Your task to perform on an android device: add a contact Image 0: 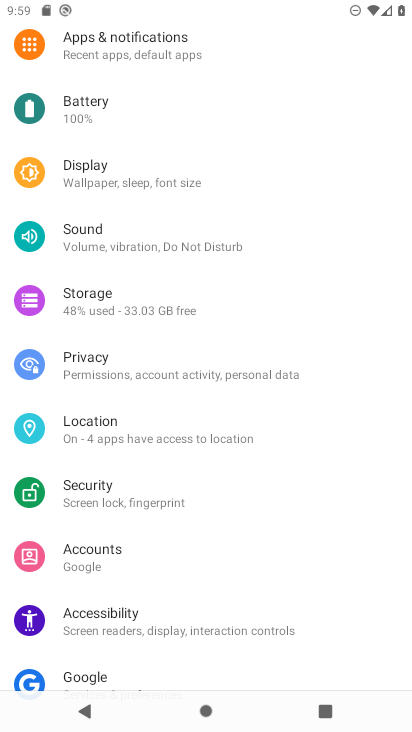
Step 0: press home button
Your task to perform on an android device: add a contact Image 1: 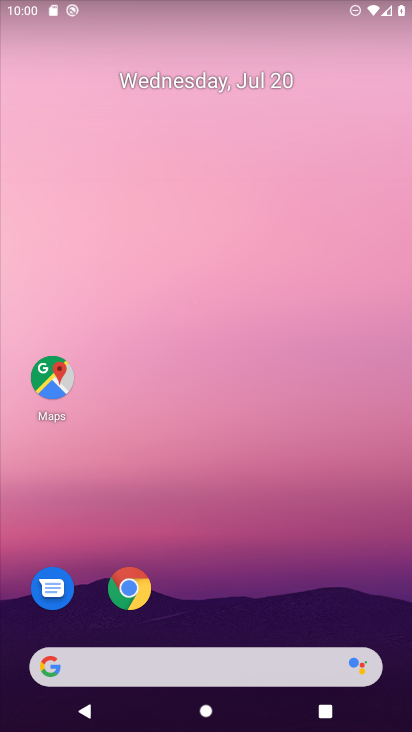
Step 1: drag from (272, 586) to (220, 25)
Your task to perform on an android device: add a contact Image 2: 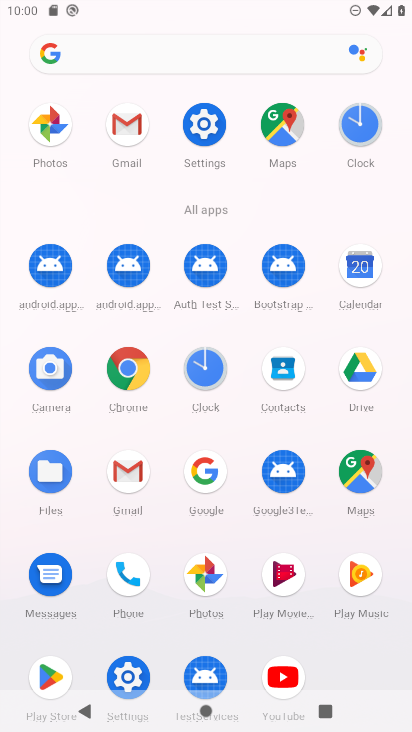
Step 2: drag from (48, 363) to (161, 221)
Your task to perform on an android device: add a contact Image 3: 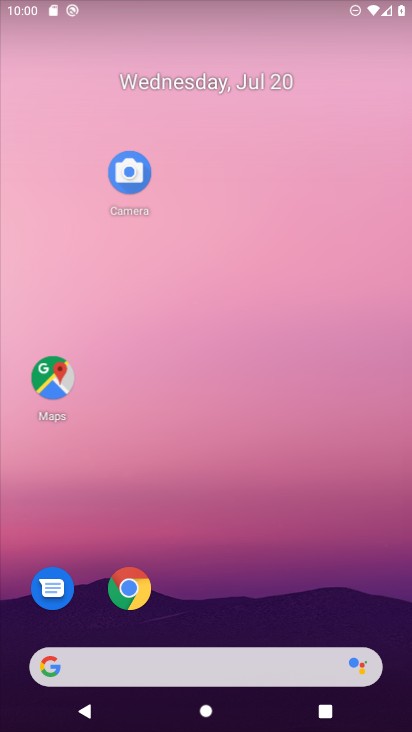
Step 3: press home button
Your task to perform on an android device: add a contact Image 4: 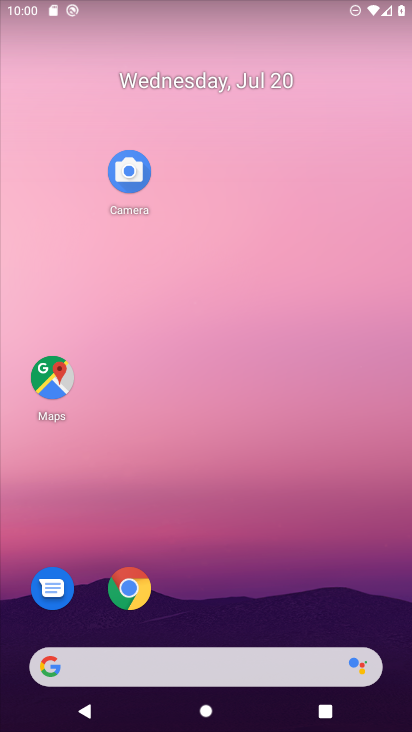
Step 4: press home button
Your task to perform on an android device: add a contact Image 5: 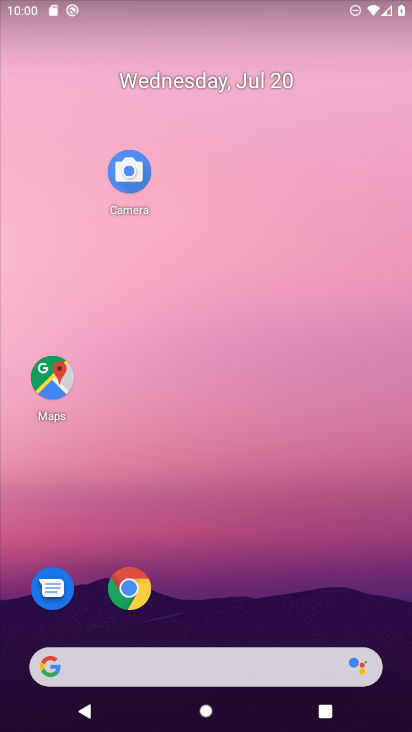
Step 5: drag from (273, 440) to (272, 94)
Your task to perform on an android device: add a contact Image 6: 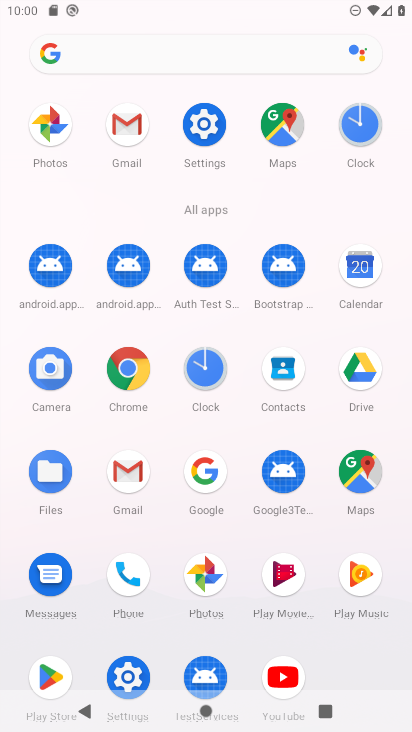
Step 6: click (277, 367)
Your task to perform on an android device: add a contact Image 7: 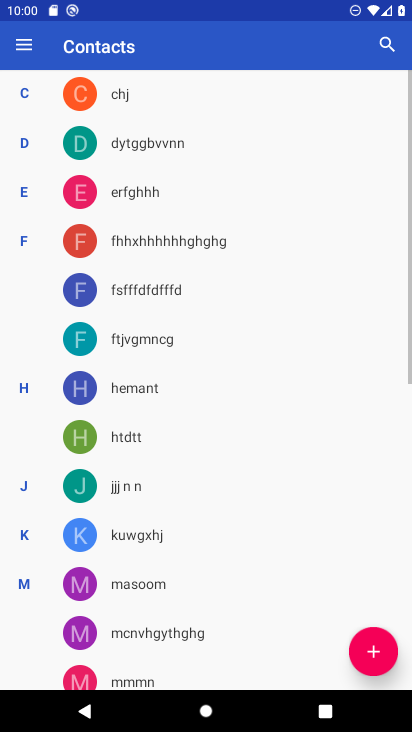
Step 7: click (372, 648)
Your task to perform on an android device: add a contact Image 8: 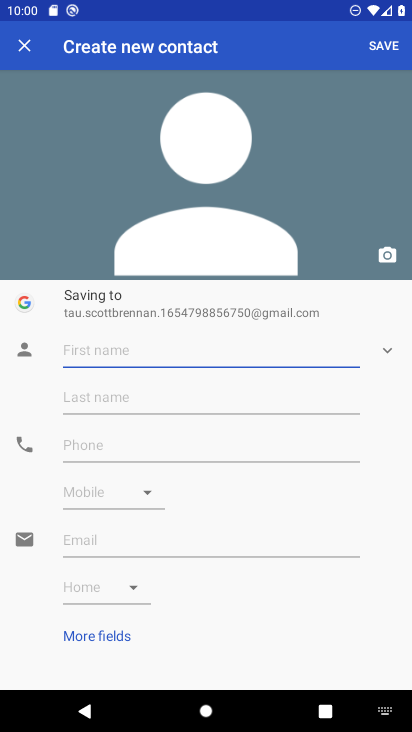
Step 8: click (96, 349)
Your task to perform on an android device: add a contact Image 9: 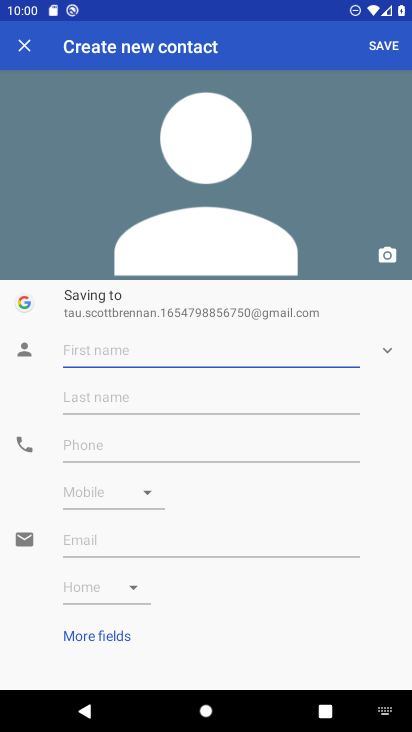
Step 9: type "fsfsfssf"
Your task to perform on an android device: add a contact Image 10: 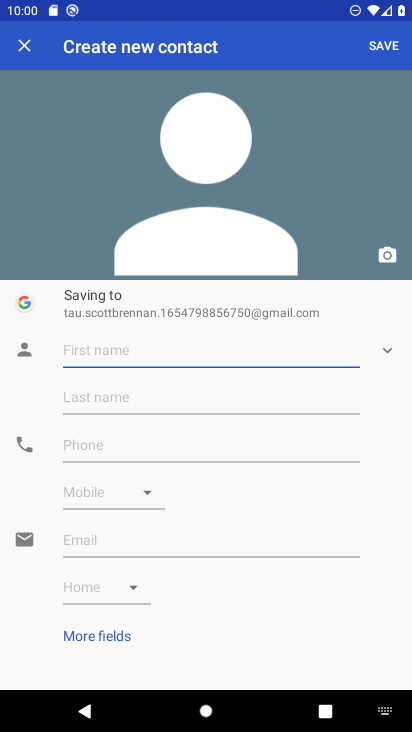
Step 10: click (104, 347)
Your task to perform on an android device: add a contact Image 11: 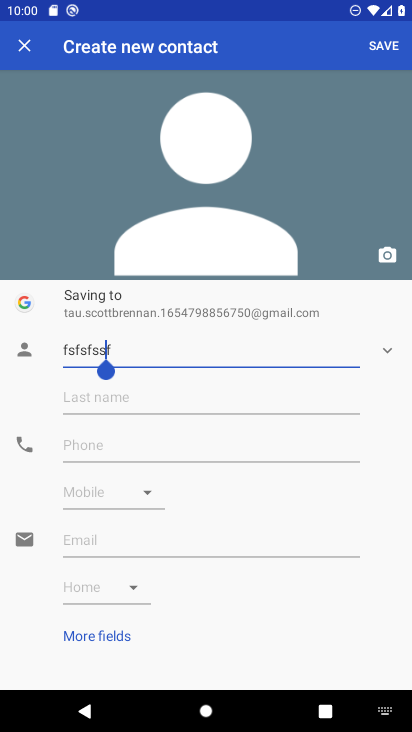
Step 11: type "dssddsdsds"
Your task to perform on an android device: add a contact Image 12: 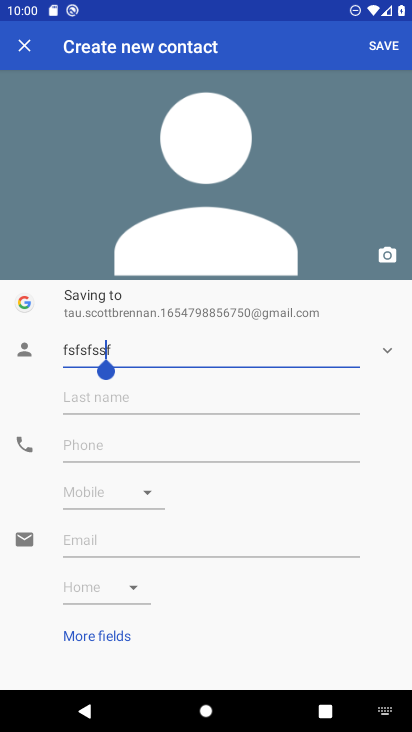
Step 12: click (98, 448)
Your task to perform on an android device: add a contact Image 13: 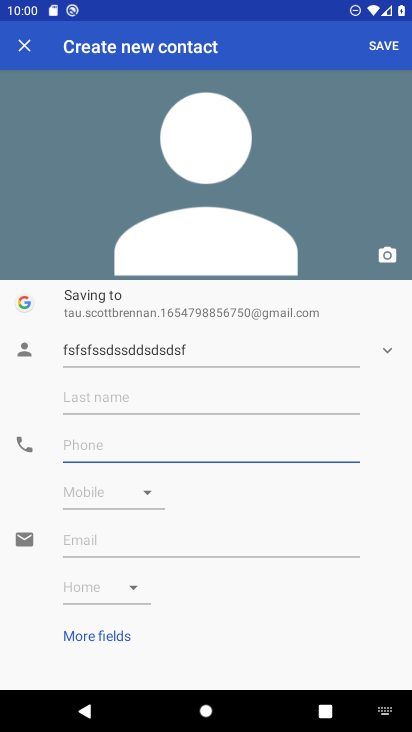
Step 13: type "422224224"
Your task to perform on an android device: add a contact Image 14: 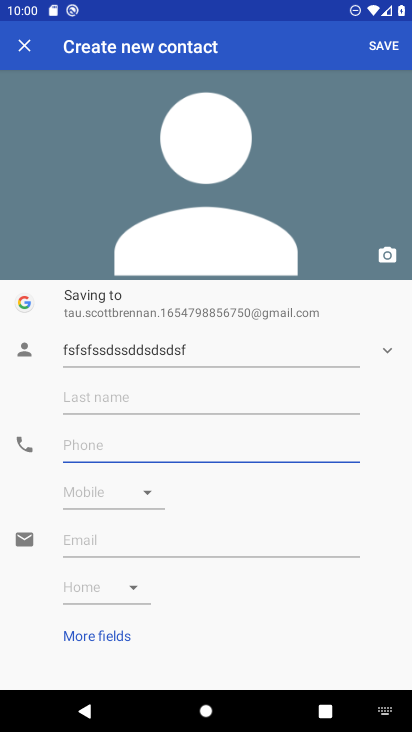
Step 14: click (162, 444)
Your task to perform on an android device: add a contact Image 15: 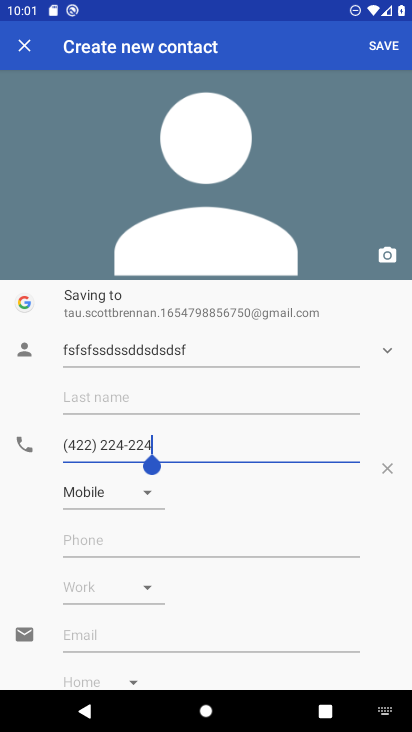
Step 15: click (391, 51)
Your task to perform on an android device: add a contact Image 16: 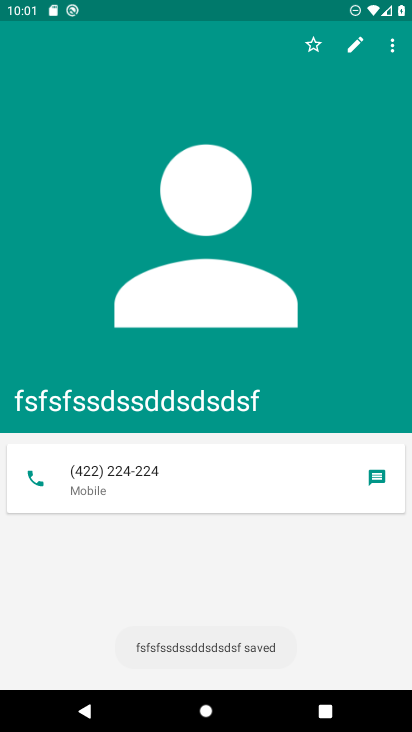
Step 16: task complete